Your task to perform on an android device: turn off airplane mode Image 0: 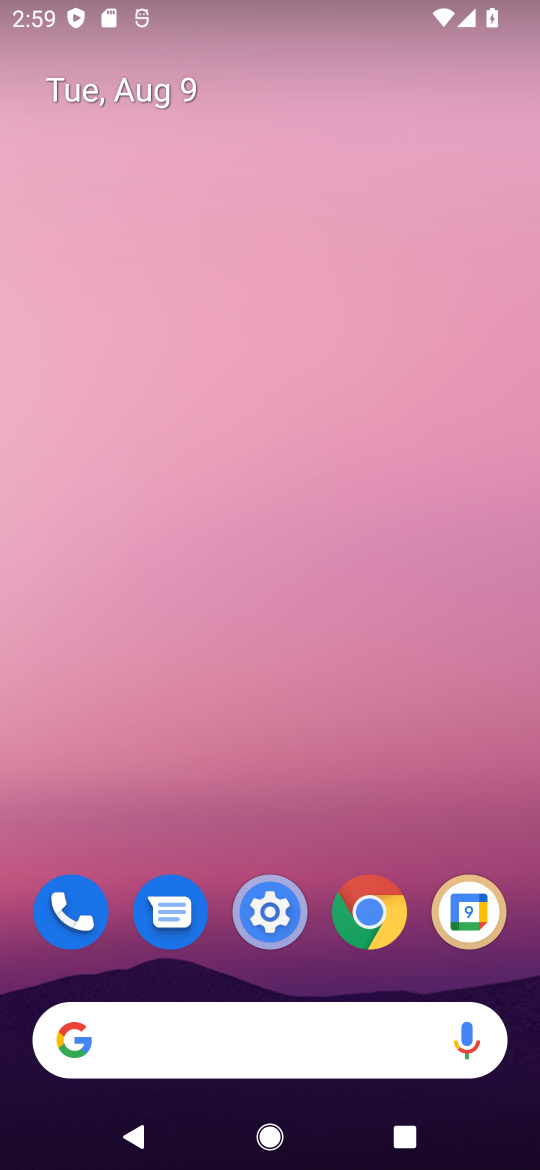
Step 0: drag from (305, 791) to (272, 315)
Your task to perform on an android device: turn off airplane mode Image 1: 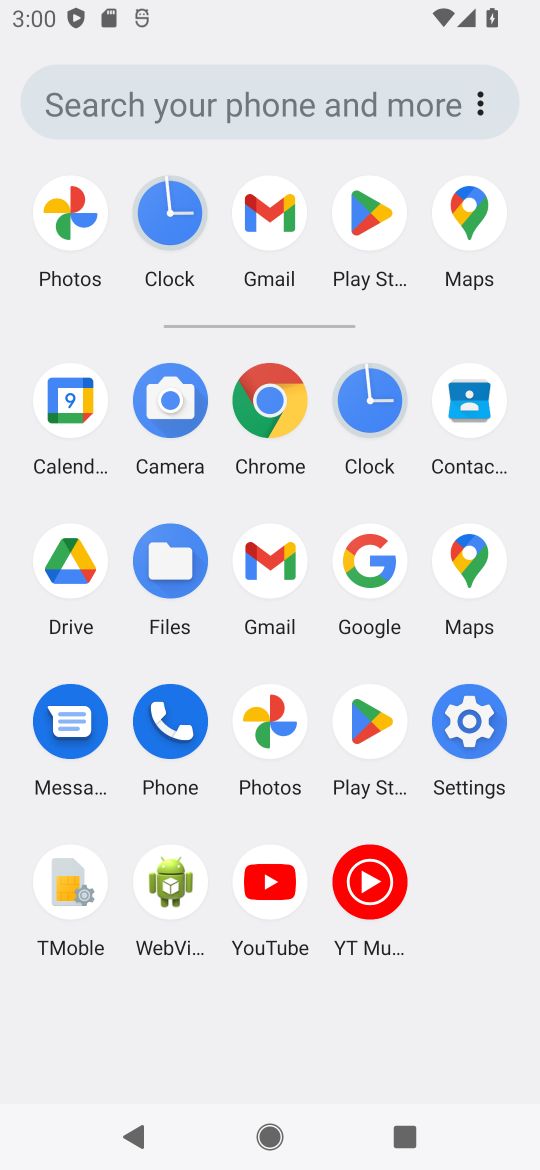
Step 1: click (467, 715)
Your task to perform on an android device: turn off airplane mode Image 2: 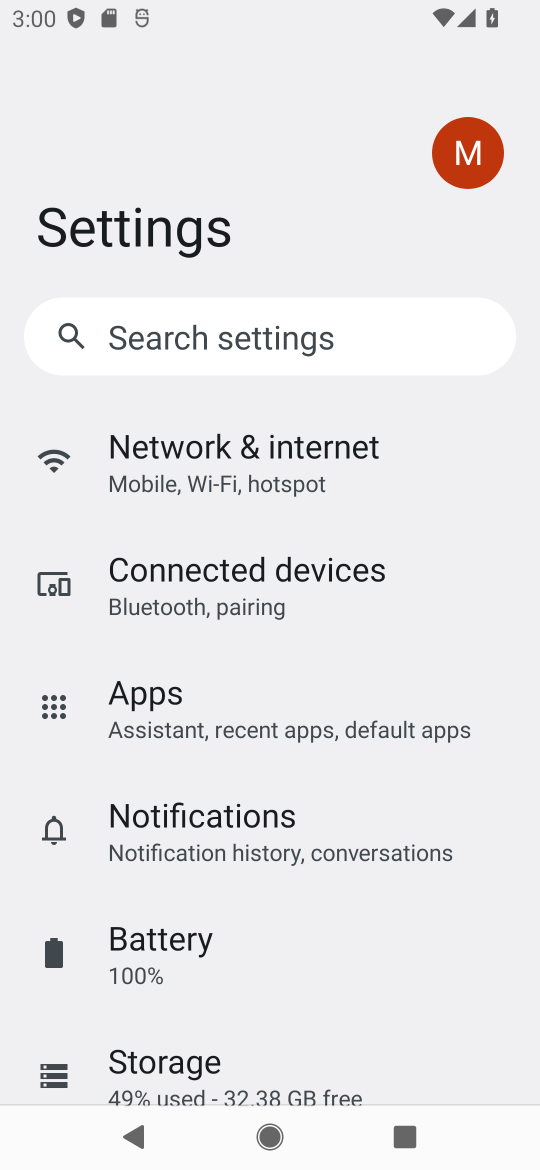
Step 2: drag from (303, 931) to (266, 394)
Your task to perform on an android device: turn off airplane mode Image 3: 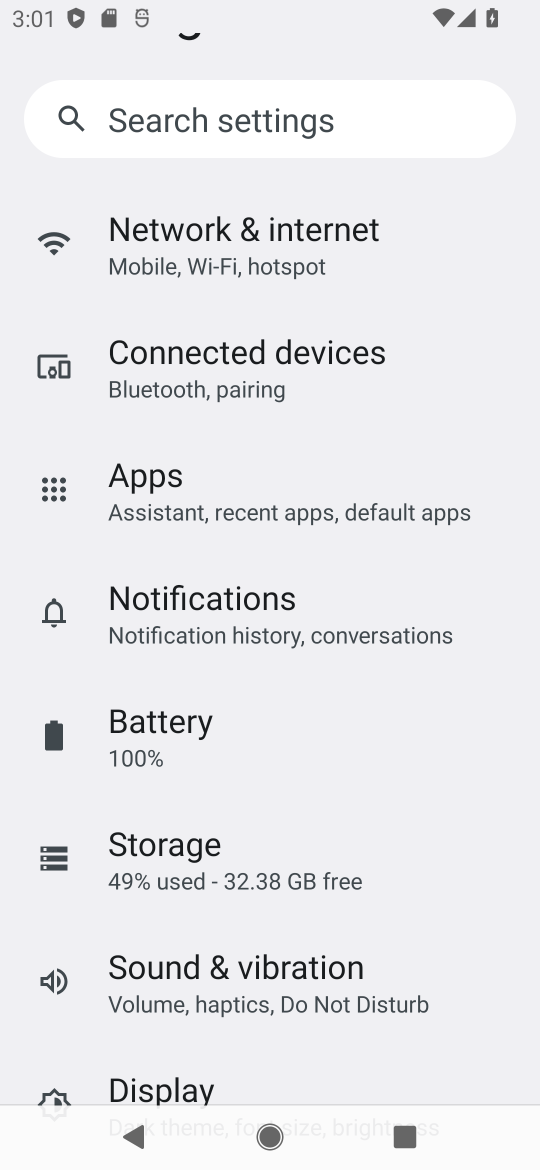
Step 3: click (208, 230)
Your task to perform on an android device: turn off airplane mode Image 4: 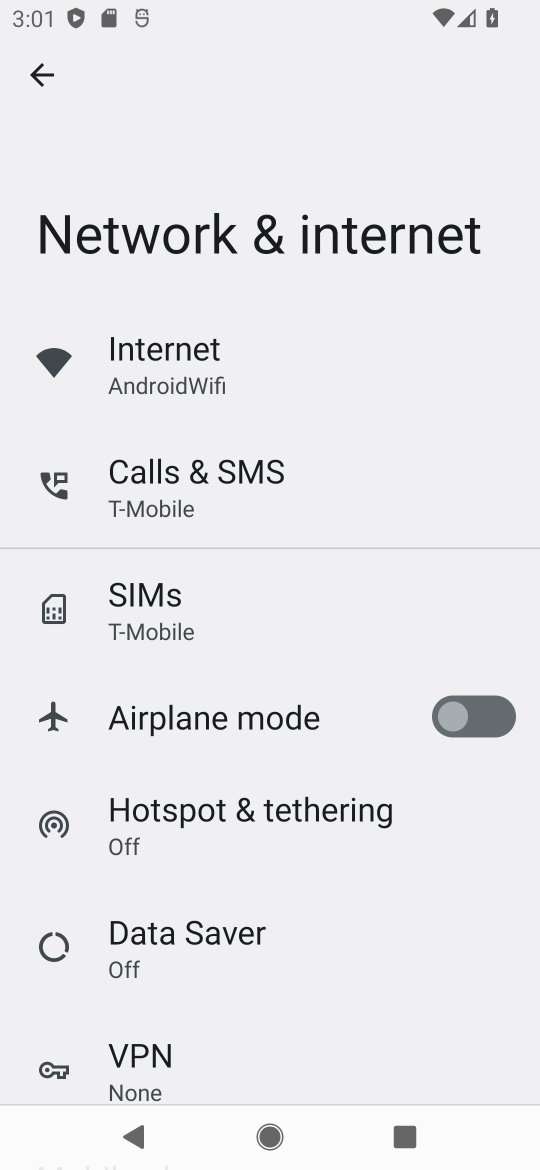
Step 4: task complete